Your task to perform on an android device: Is it going to rain tomorrow? Image 0: 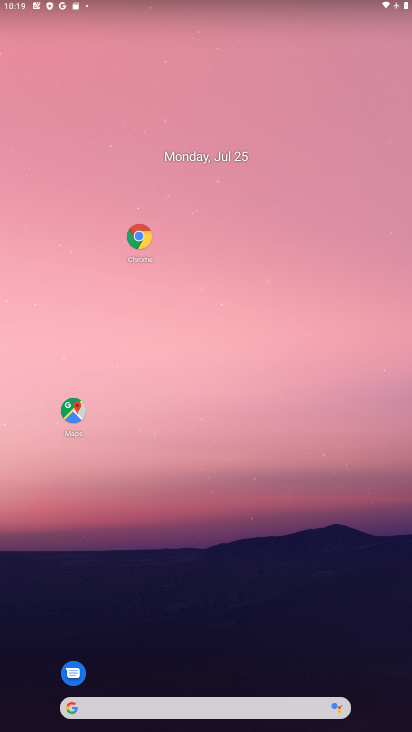
Step 0: click (229, 702)
Your task to perform on an android device: Is it going to rain tomorrow? Image 1: 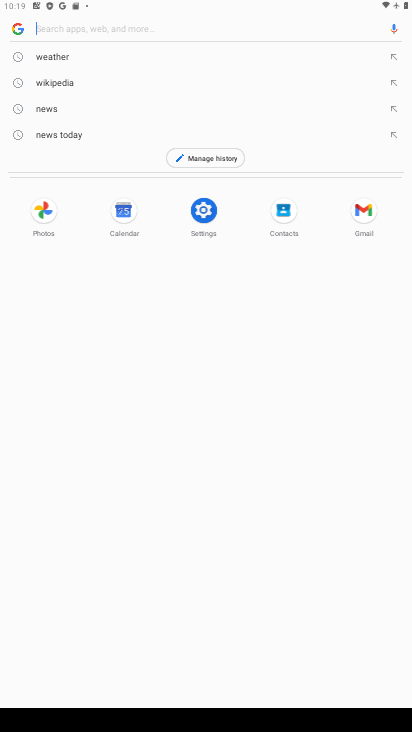
Step 1: click (112, 50)
Your task to perform on an android device: Is it going to rain tomorrow? Image 2: 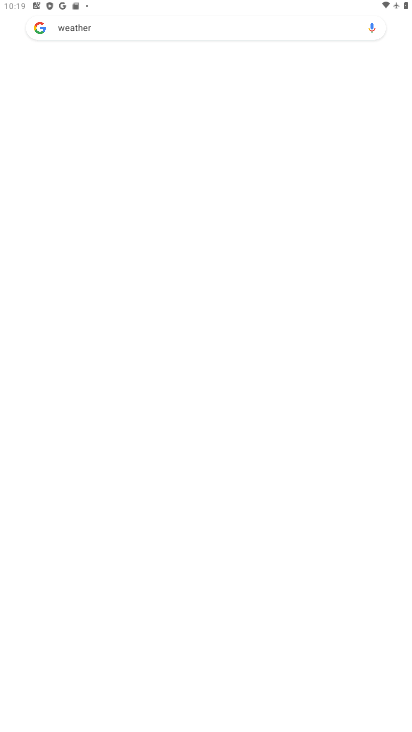
Step 2: task complete